Your task to perform on an android device: Go to wifi settings Image 0: 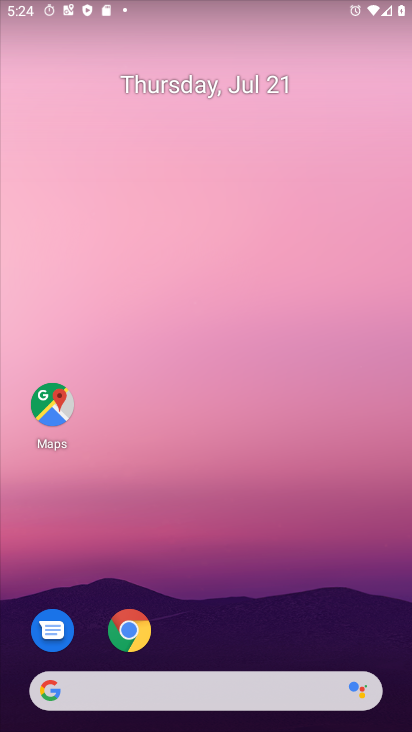
Step 0: drag from (157, 692) to (311, 49)
Your task to perform on an android device: Go to wifi settings Image 1: 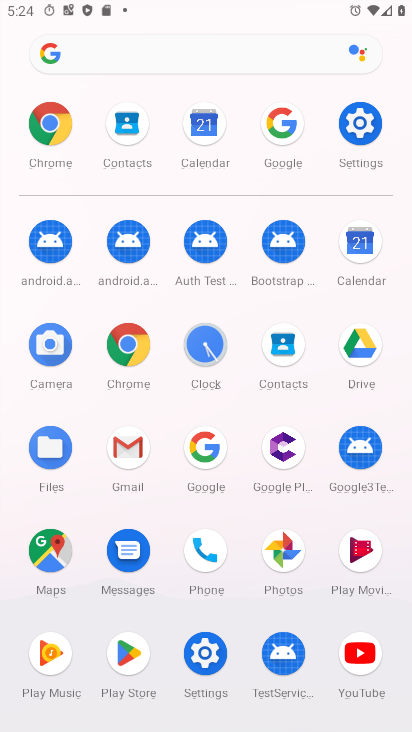
Step 1: click (354, 124)
Your task to perform on an android device: Go to wifi settings Image 2: 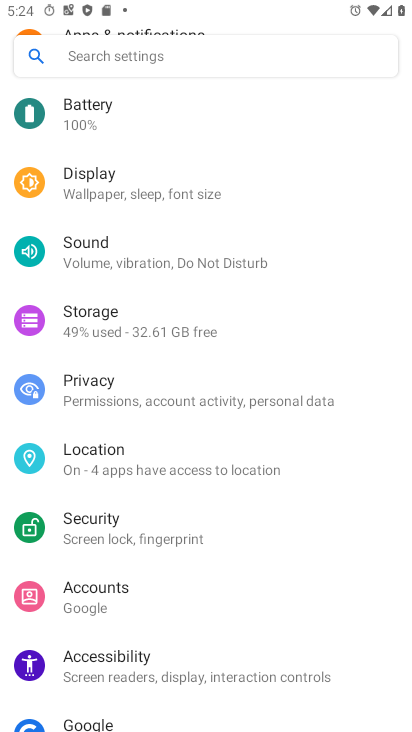
Step 2: drag from (157, 222) to (207, 501)
Your task to perform on an android device: Go to wifi settings Image 3: 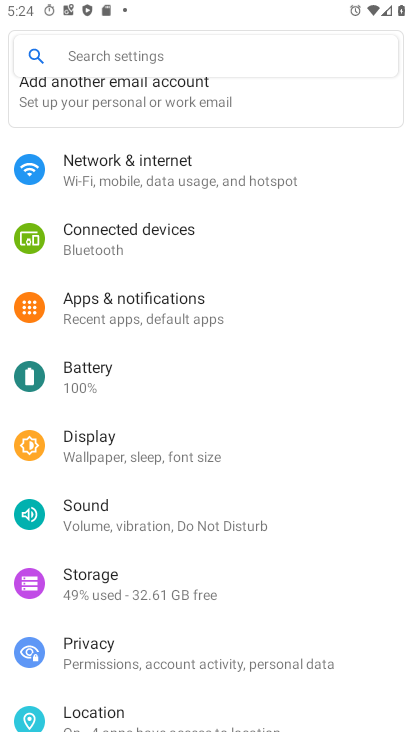
Step 3: click (132, 163)
Your task to perform on an android device: Go to wifi settings Image 4: 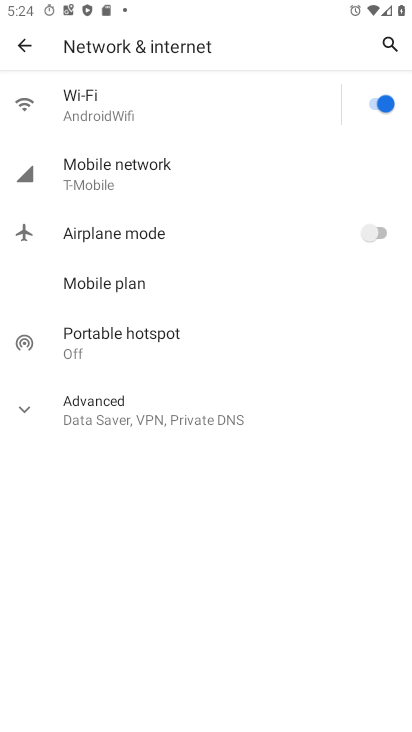
Step 4: click (94, 102)
Your task to perform on an android device: Go to wifi settings Image 5: 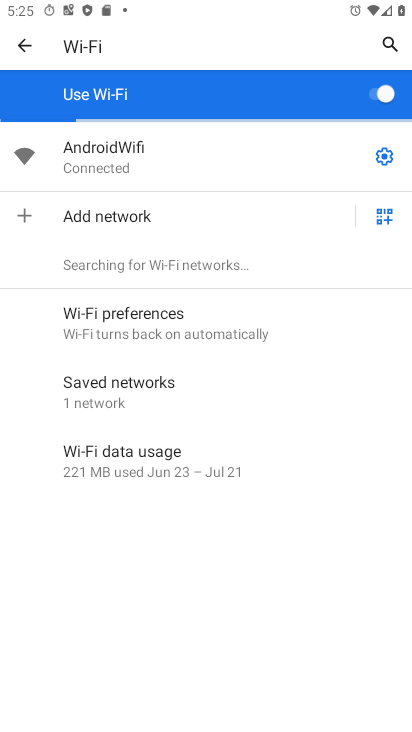
Step 5: click (382, 155)
Your task to perform on an android device: Go to wifi settings Image 6: 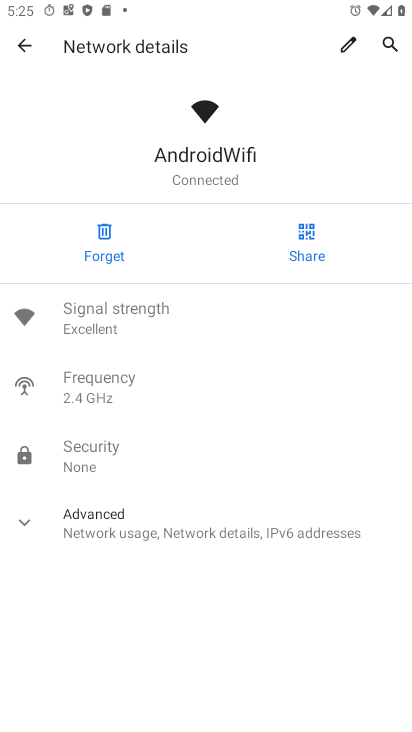
Step 6: task complete